Your task to perform on an android device: open chrome and create a bookmark for the current page Image 0: 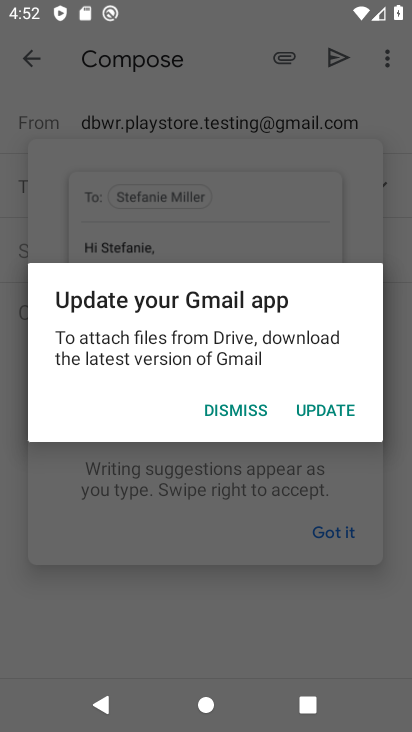
Step 0: click (235, 404)
Your task to perform on an android device: open chrome and create a bookmark for the current page Image 1: 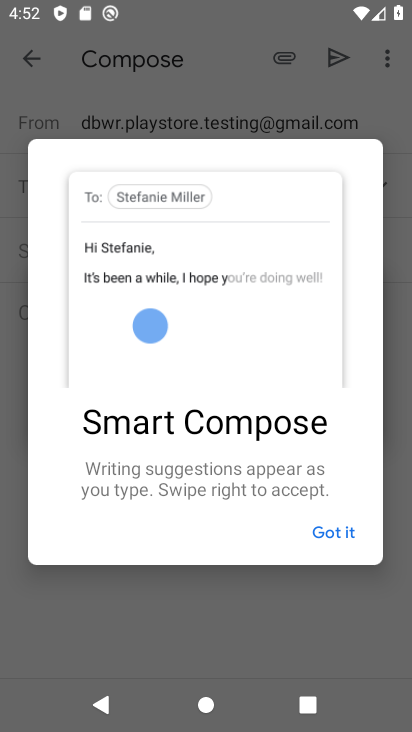
Step 1: click (333, 529)
Your task to perform on an android device: open chrome and create a bookmark for the current page Image 2: 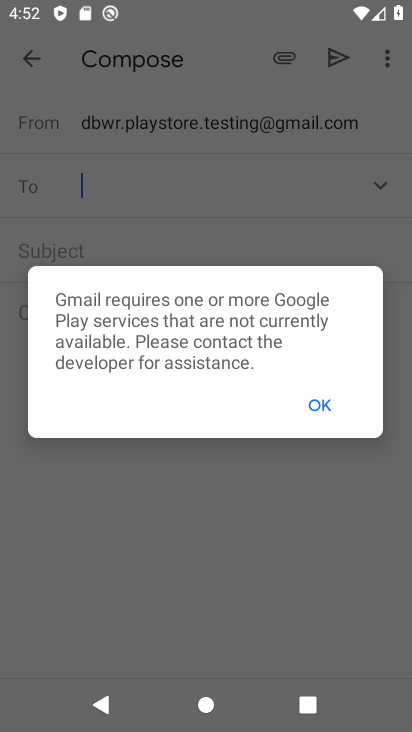
Step 2: click (335, 408)
Your task to perform on an android device: open chrome and create a bookmark for the current page Image 3: 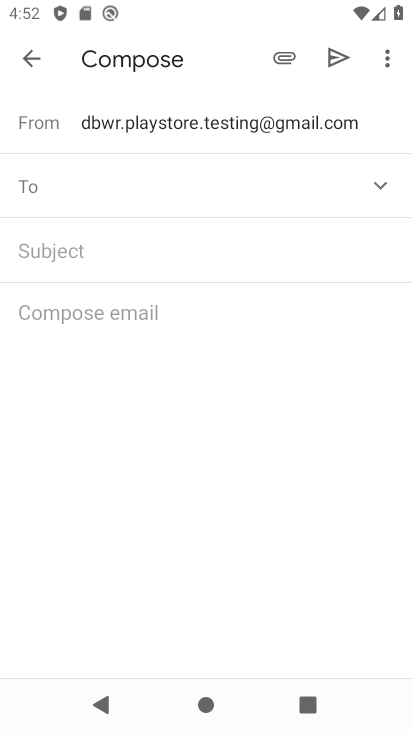
Step 3: press back button
Your task to perform on an android device: open chrome and create a bookmark for the current page Image 4: 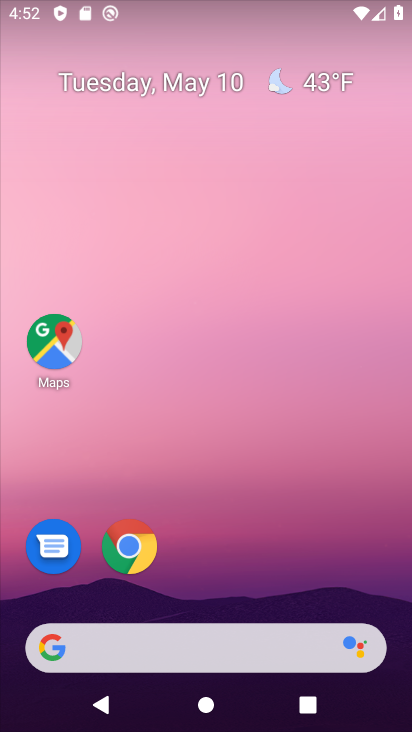
Step 4: drag from (245, 585) to (153, 118)
Your task to perform on an android device: open chrome and create a bookmark for the current page Image 5: 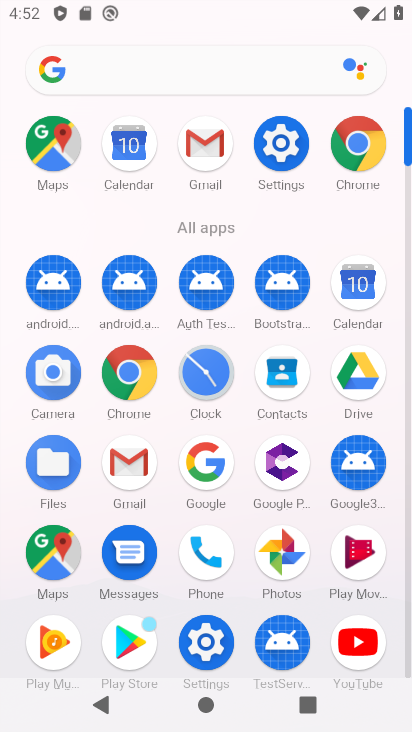
Step 5: click (352, 145)
Your task to perform on an android device: open chrome and create a bookmark for the current page Image 6: 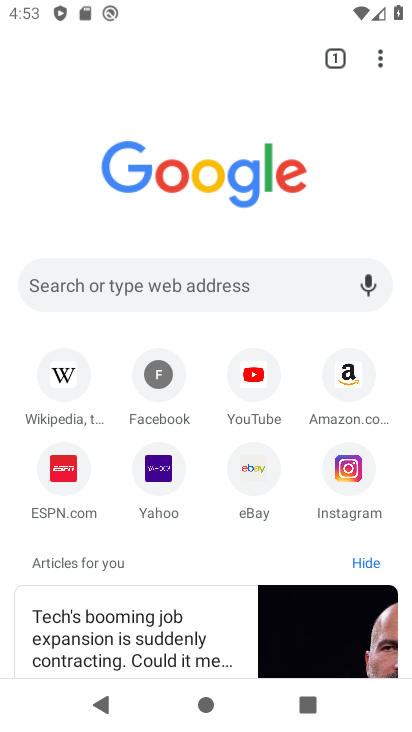
Step 6: click (63, 284)
Your task to perform on an android device: open chrome and create a bookmark for the current page Image 7: 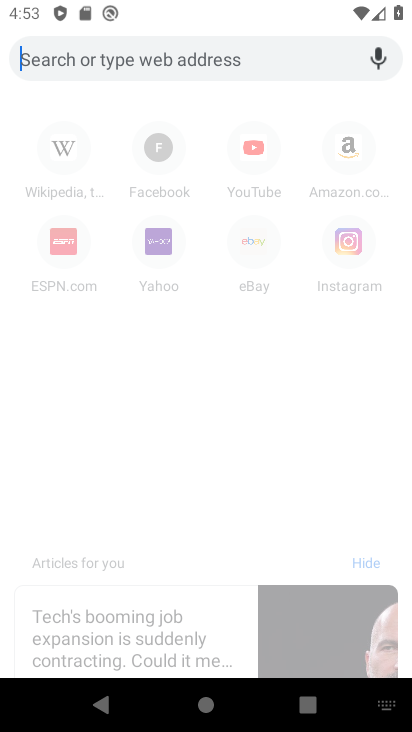
Step 7: type "www.snapdeal.com"
Your task to perform on an android device: open chrome and create a bookmark for the current page Image 8: 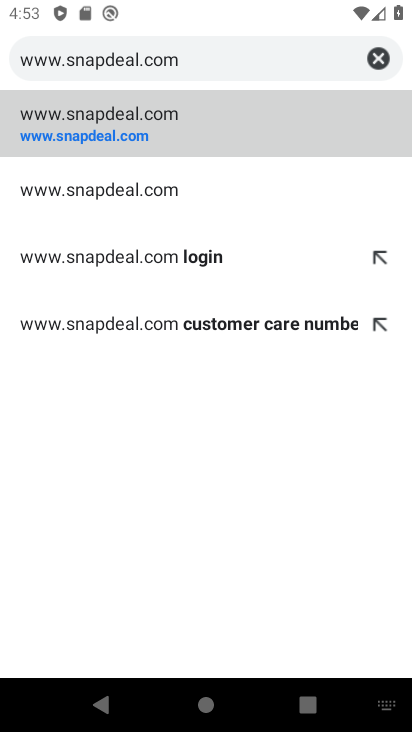
Step 8: click (86, 135)
Your task to perform on an android device: open chrome and create a bookmark for the current page Image 9: 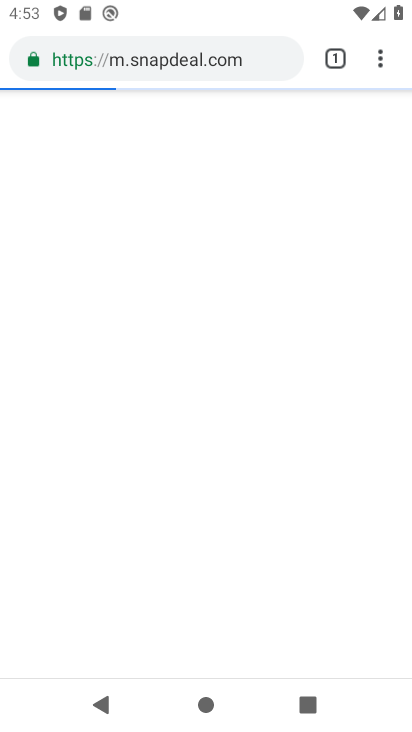
Step 9: click (86, 135)
Your task to perform on an android device: open chrome and create a bookmark for the current page Image 10: 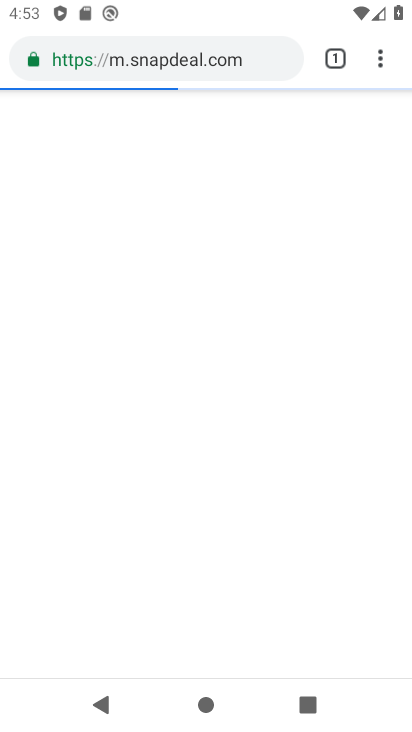
Step 10: click (86, 135)
Your task to perform on an android device: open chrome and create a bookmark for the current page Image 11: 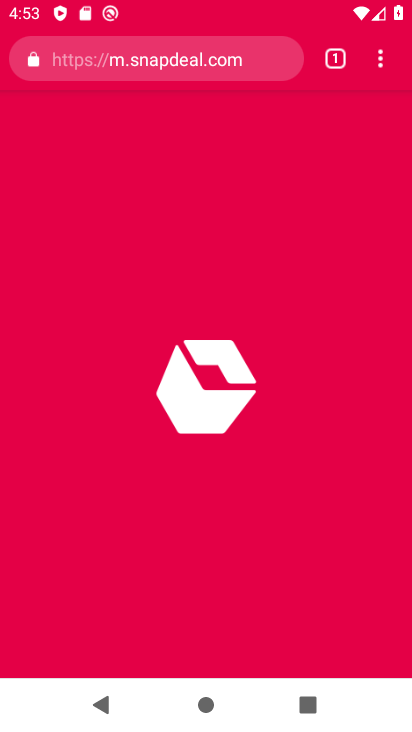
Step 11: drag from (377, 56) to (388, 20)
Your task to perform on an android device: open chrome and create a bookmark for the current page Image 12: 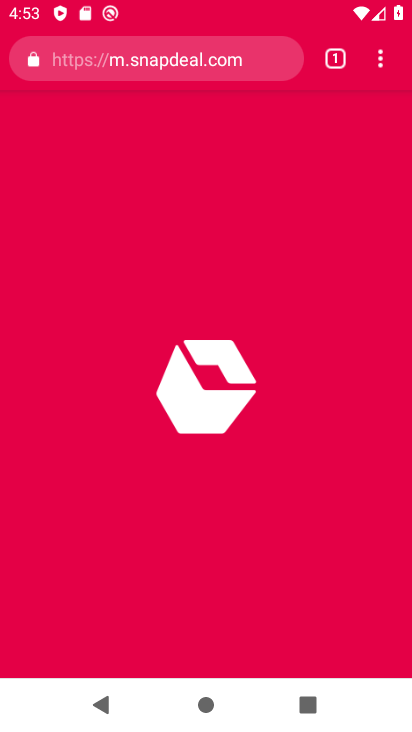
Step 12: drag from (381, 58) to (170, 228)
Your task to perform on an android device: open chrome and create a bookmark for the current page Image 13: 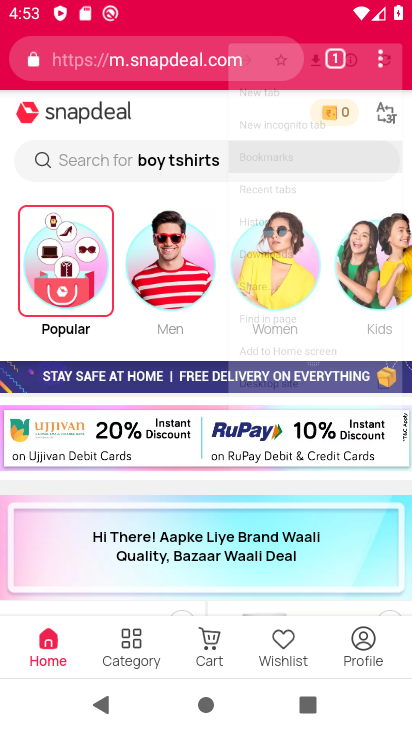
Step 13: click (170, 228)
Your task to perform on an android device: open chrome and create a bookmark for the current page Image 14: 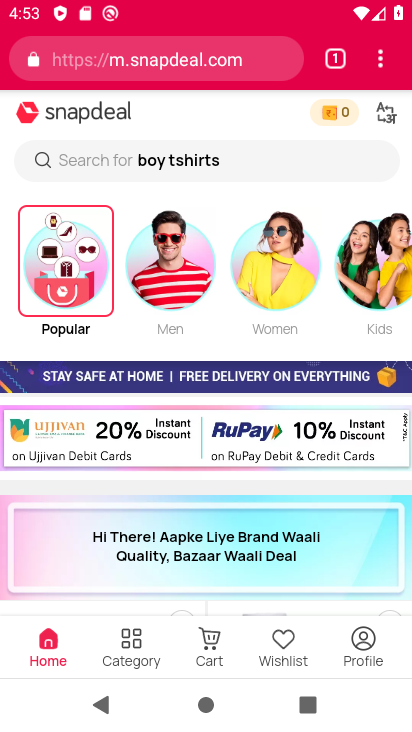
Step 14: click (170, 227)
Your task to perform on an android device: open chrome and create a bookmark for the current page Image 15: 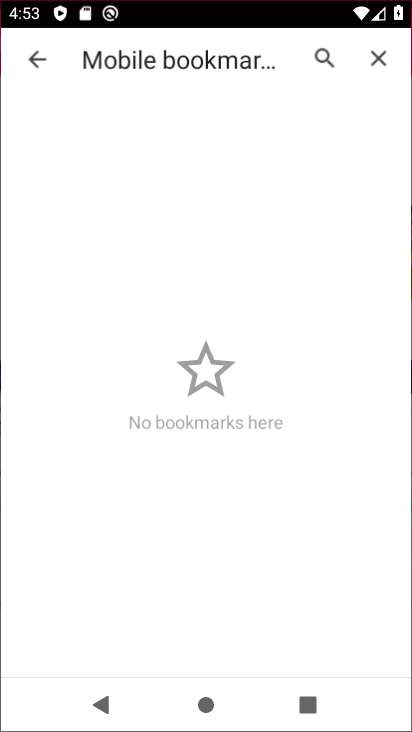
Step 15: click (170, 226)
Your task to perform on an android device: open chrome and create a bookmark for the current page Image 16: 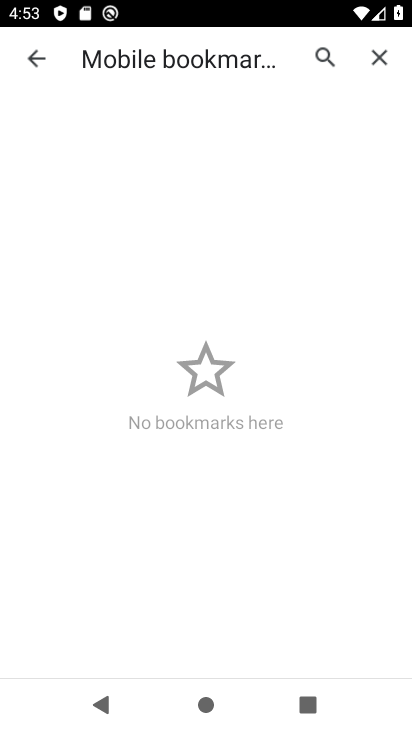
Step 16: task complete